Your task to perform on an android device: Open Google Maps and go to "Timeline" Image 0: 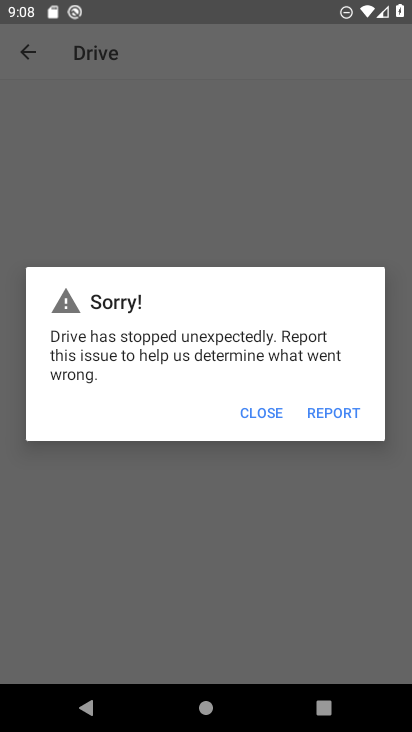
Step 0: drag from (210, 618) to (292, 80)
Your task to perform on an android device: Open Google Maps and go to "Timeline" Image 1: 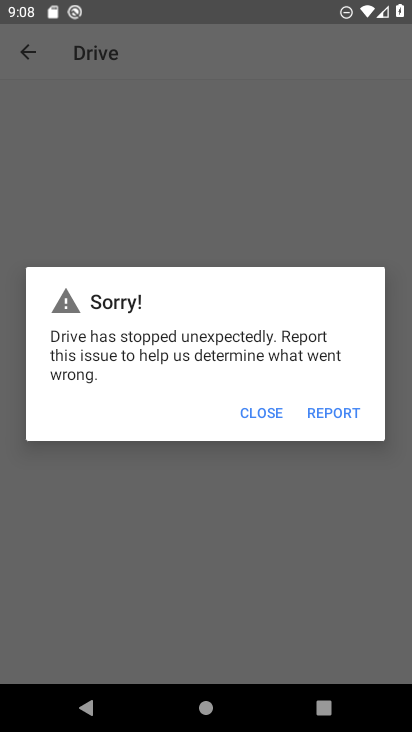
Step 1: press home button
Your task to perform on an android device: Open Google Maps and go to "Timeline" Image 2: 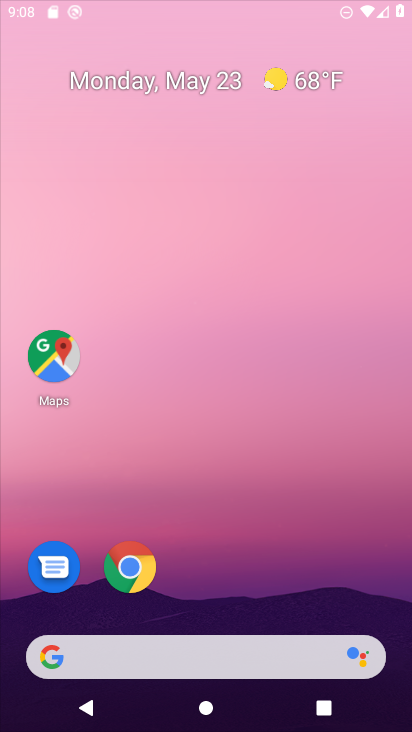
Step 2: drag from (217, 513) to (301, 11)
Your task to perform on an android device: Open Google Maps and go to "Timeline" Image 3: 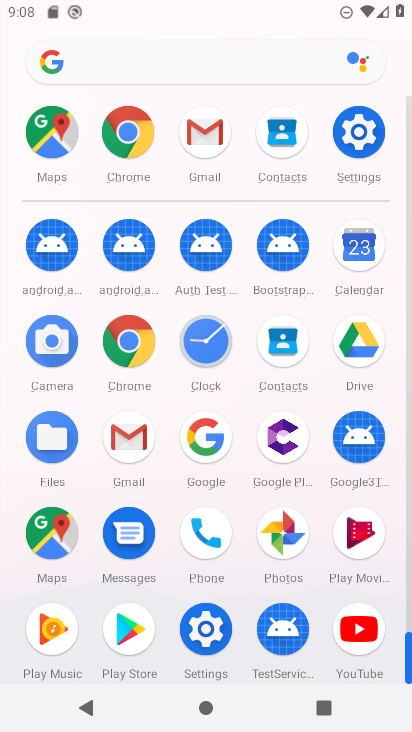
Step 3: click (53, 541)
Your task to perform on an android device: Open Google Maps and go to "Timeline" Image 4: 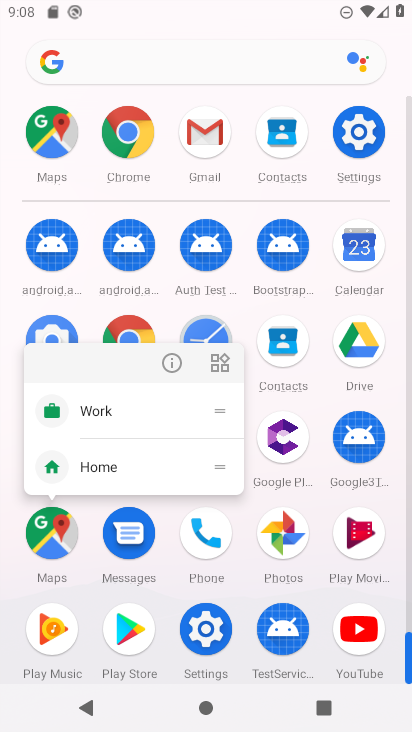
Step 4: click (170, 363)
Your task to perform on an android device: Open Google Maps and go to "Timeline" Image 5: 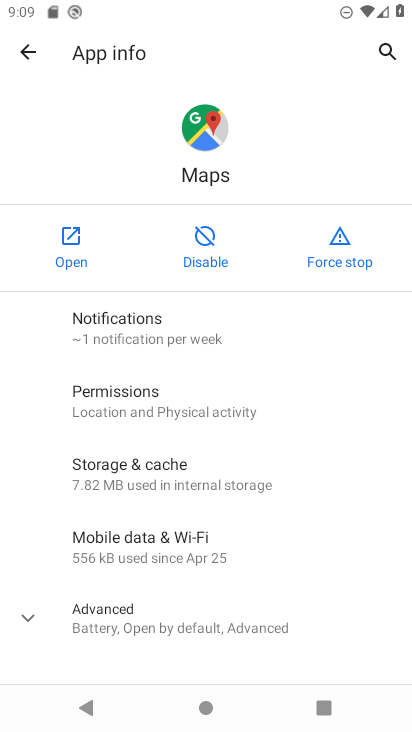
Step 5: click (73, 260)
Your task to perform on an android device: Open Google Maps and go to "Timeline" Image 6: 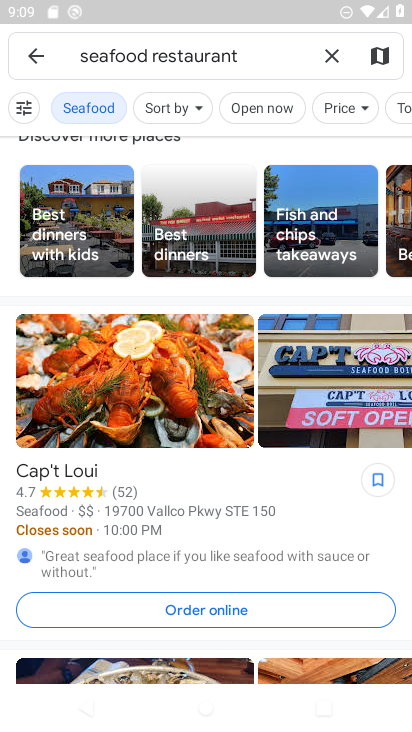
Step 6: click (42, 57)
Your task to perform on an android device: Open Google Maps and go to "Timeline" Image 7: 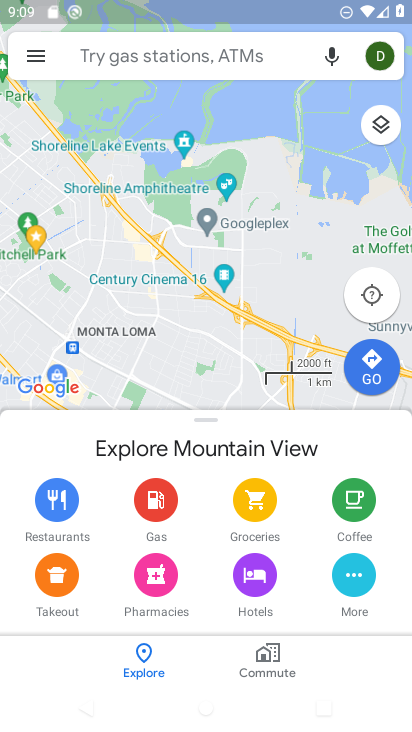
Step 7: click (34, 50)
Your task to perform on an android device: Open Google Maps and go to "Timeline" Image 8: 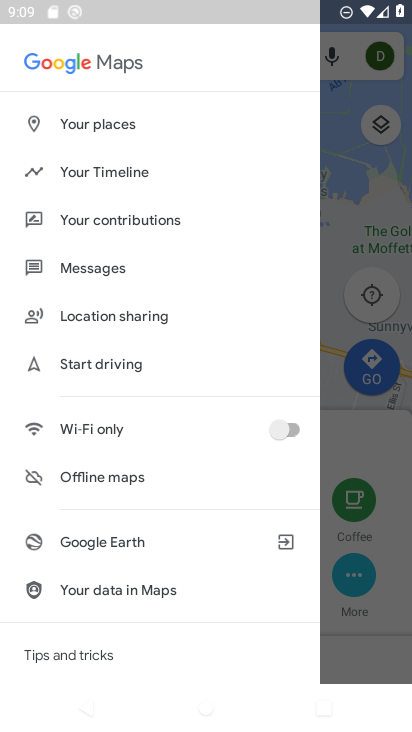
Step 8: click (131, 167)
Your task to perform on an android device: Open Google Maps and go to "Timeline" Image 9: 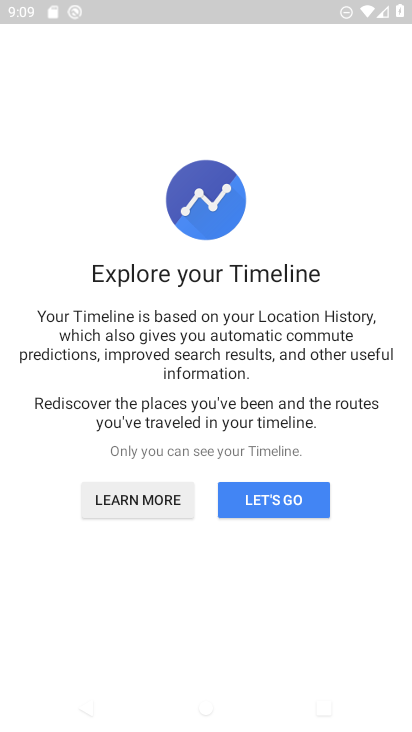
Step 9: click (250, 501)
Your task to perform on an android device: Open Google Maps and go to "Timeline" Image 10: 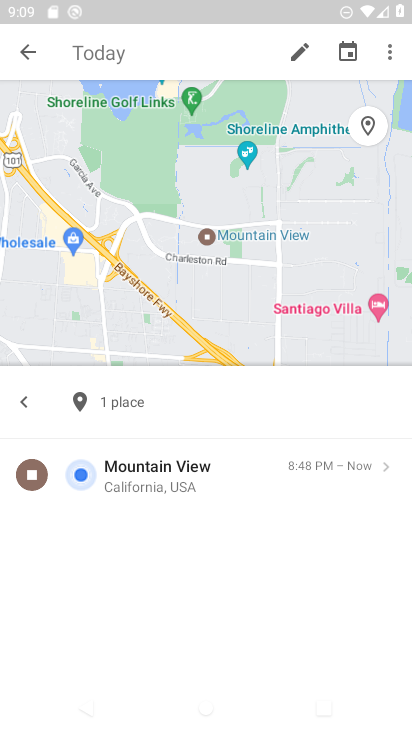
Step 10: drag from (246, 550) to (307, 141)
Your task to perform on an android device: Open Google Maps and go to "Timeline" Image 11: 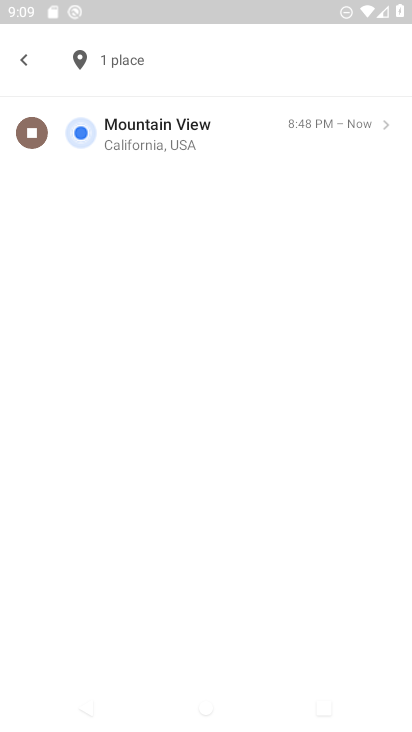
Step 11: click (26, 53)
Your task to perform on an android device: Open Google Maps and go to "Timeline" Image 12: 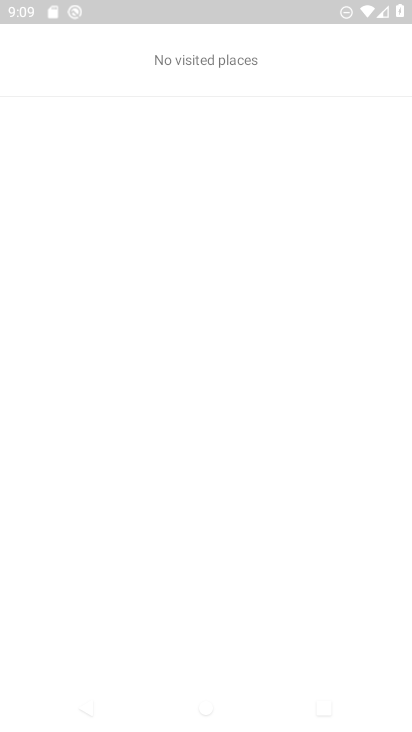
Step 12: task complete